Your task to perform on an android device: Do I have any events tomorrow? Image 0: 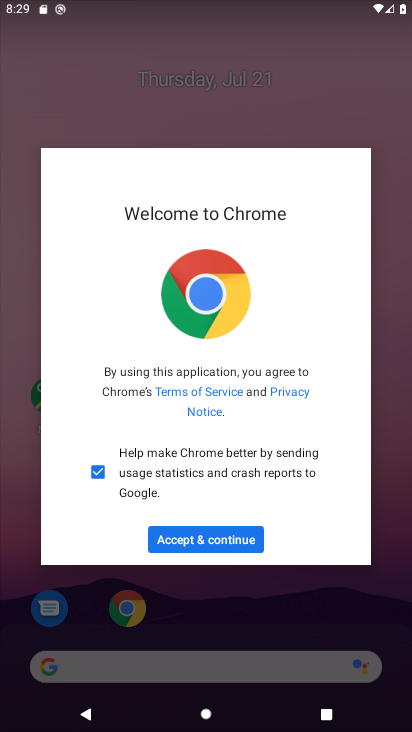
Step 0: press home button
Your task to perform on an android device: Do I have any events tomorrow? Image 1: 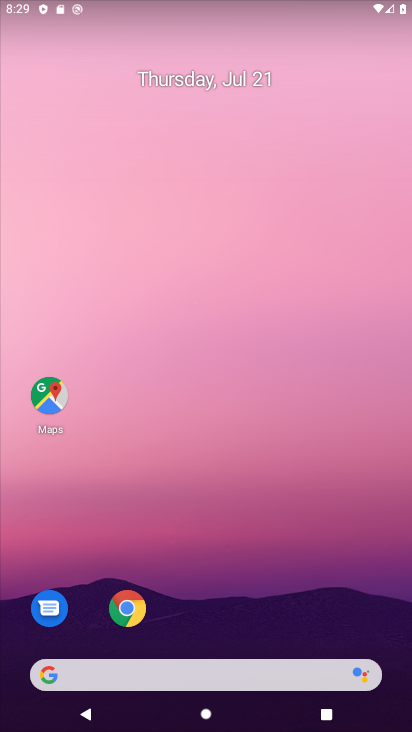
Step 1: drag from (251, 606) to (194, 222)
Your task to perform on an android device: Do I have any events tomorrow? Image 2: 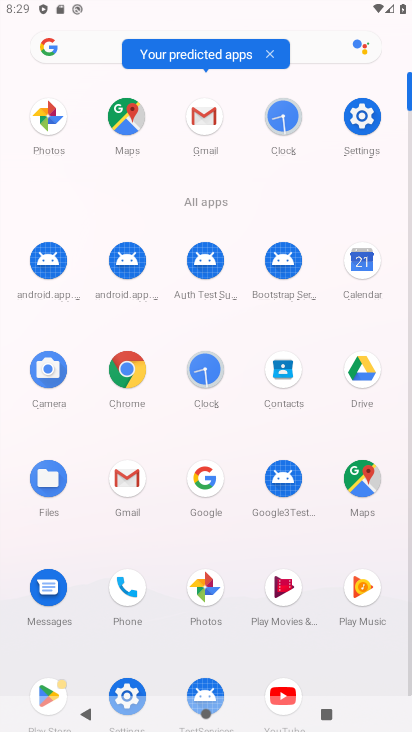
Step 2: click (350, 274)
Your task to perform on an android device: Do I have any events tomorrow? Image 3: 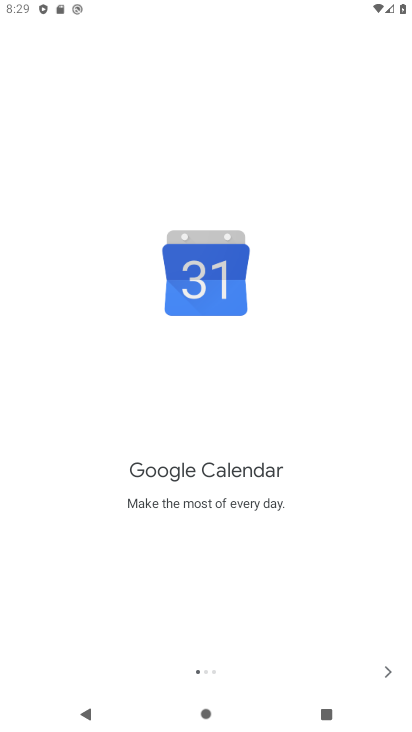
Step 3: click (385, 673)
Your task to perform on an android device: Do I have any events tomorrow? Image 4: 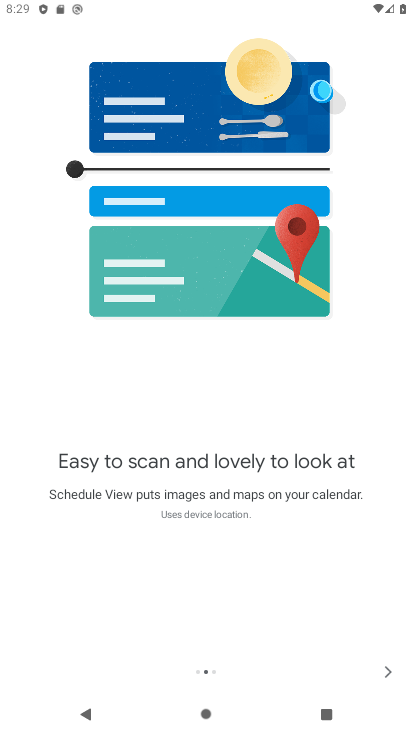
Step 4: click (385, 673)
Your task to perform on an android device: Do I have any events tomorrow? Image 5: 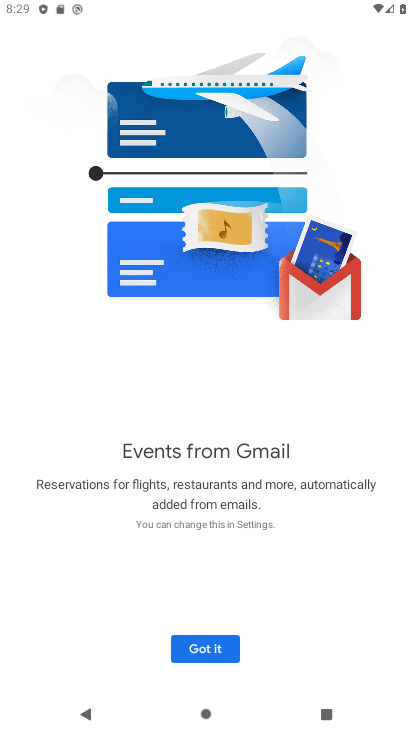
Step 5: click (207, 652)
Your task to perform on an android device: Do I have any events tomorrow? Image 6: 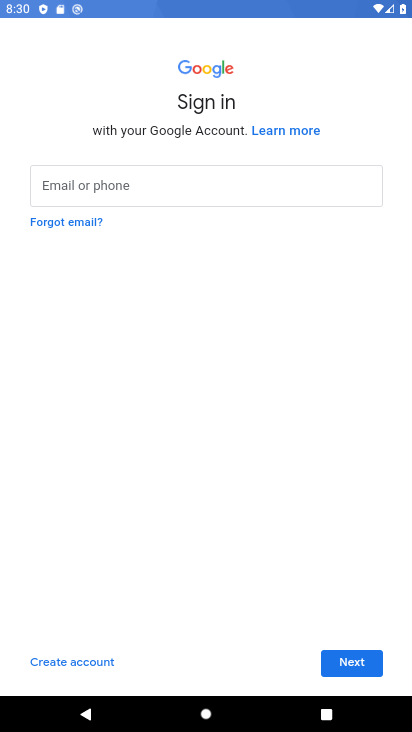
Step 6: press back button
Your task to perform on an android device: Do I have any events tomorrow? Image 7: 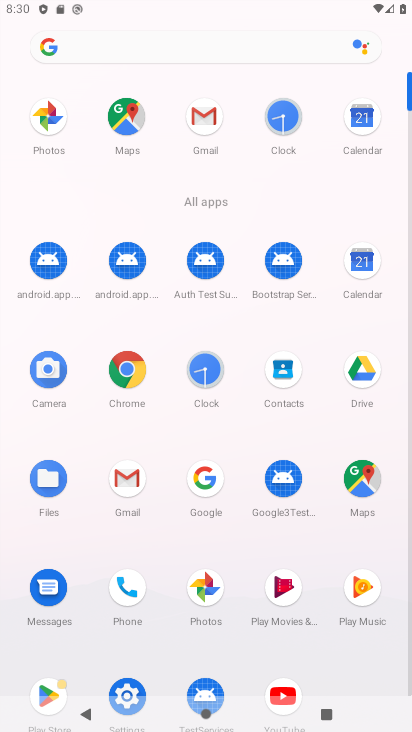
Step 7: click (381, 267)
Your task to perform on an android device: Do I have any events tomorrow? Image 8: 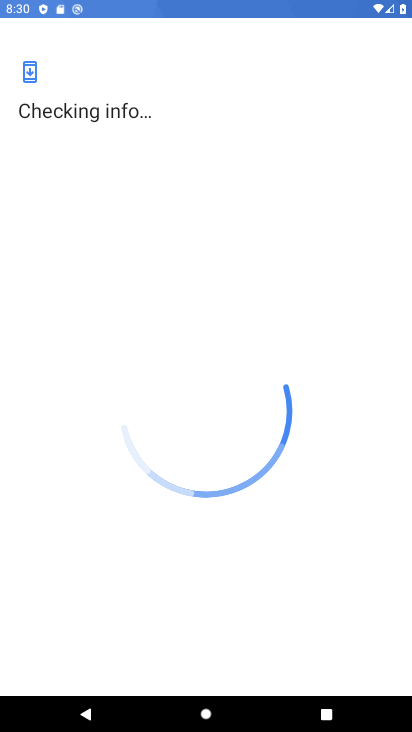
Step 8: task complete